Your task to perform on an android device: Empty the shopping cart on amazon. Add bose soundlink to the cart on amazon Image 0: 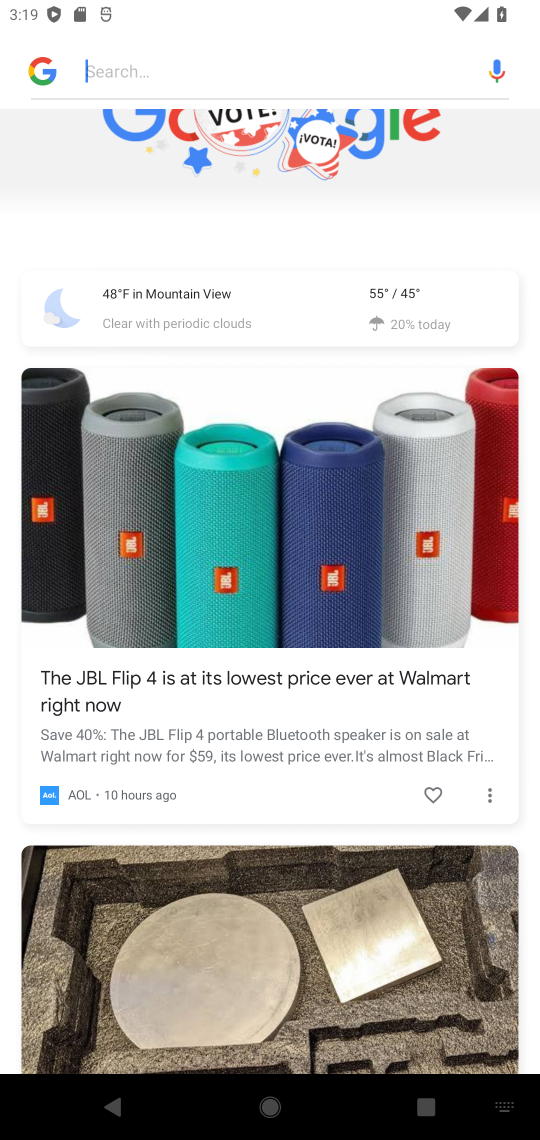
Step 0: press home button
Your task to perform on an android device: Empty the shopping cart on amazon. Add bose soundlink to the cart on amazon Image 1: 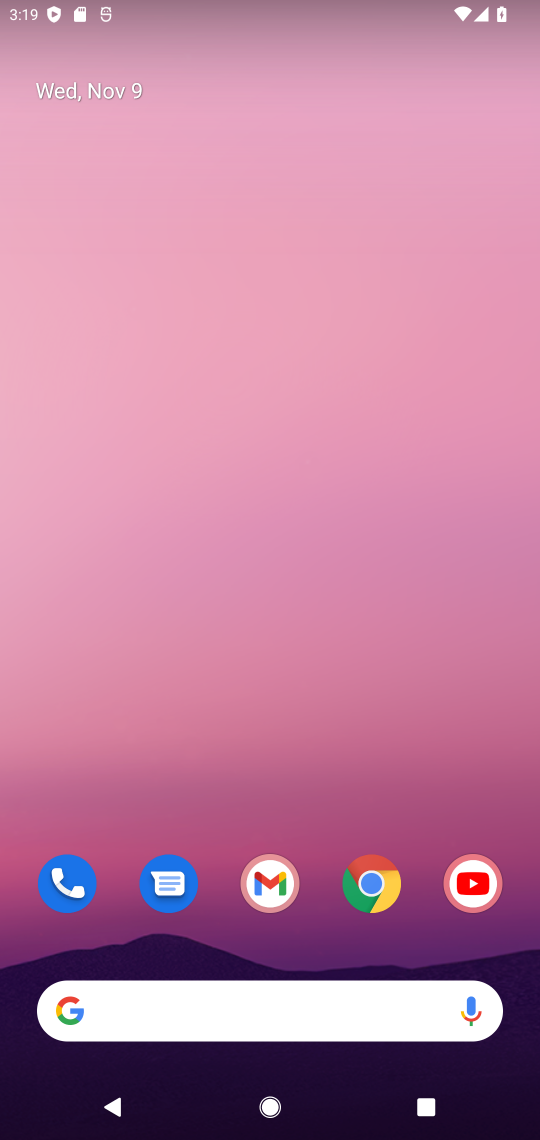
Step 1: click (376, 864)
Your task to perform on an android device: Empty the shopping cart on amazon. Add bose soundlink to the cart on amazon Image 2: 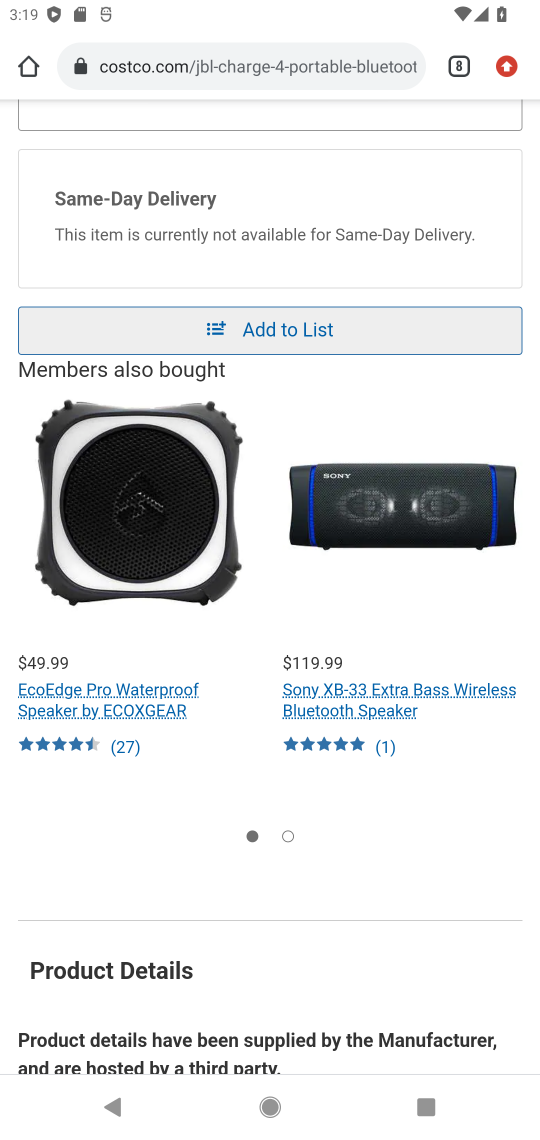
Step 2: click (458, 73)
Your task to perform on an android device: Empty the shopping cart on amazon. Add bose soundlink to the cart on amazon Image 3: 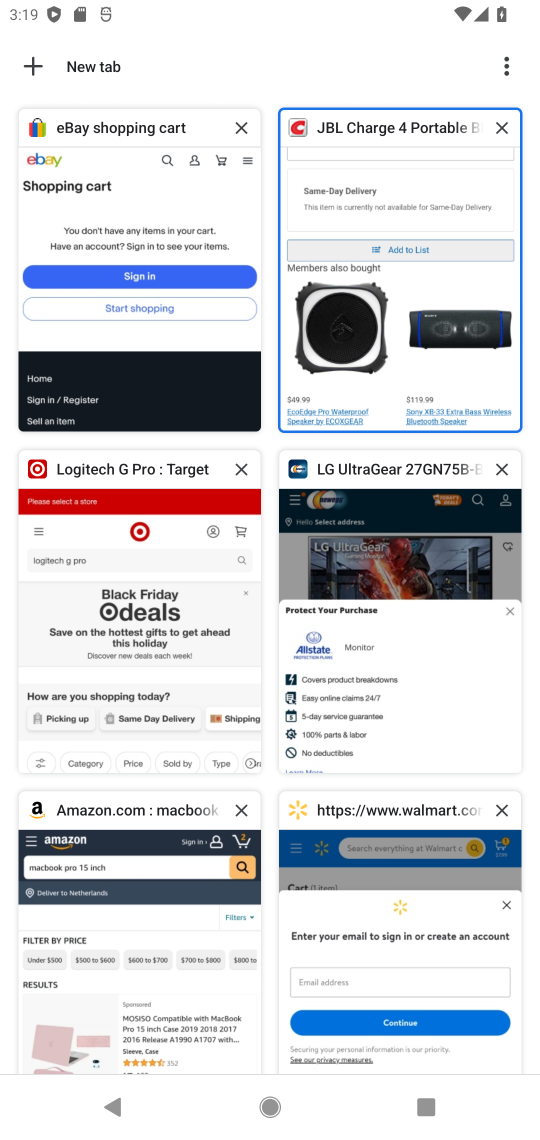
Step 3: click (5, 895)
Your task to perform on an android device: Empty the shopping cart on amazon. Add bose soundlink to the cart on amazon Image 4: 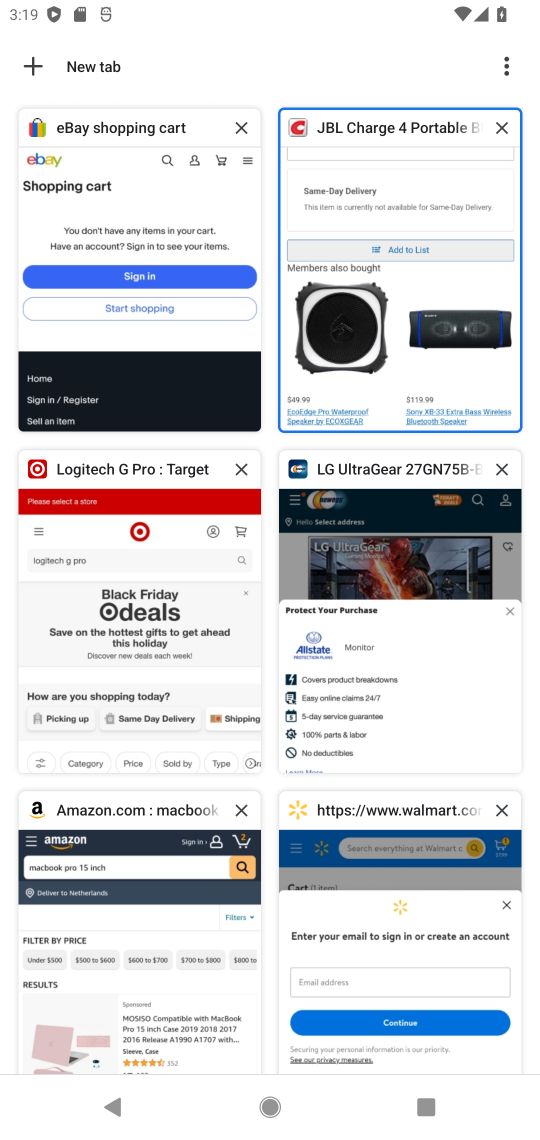
Step 4: click (33, 960)
Your task to perform on an android device: Empty the shopping cart on amazon. Add bose soundlink to the cart on amazon Image 5: 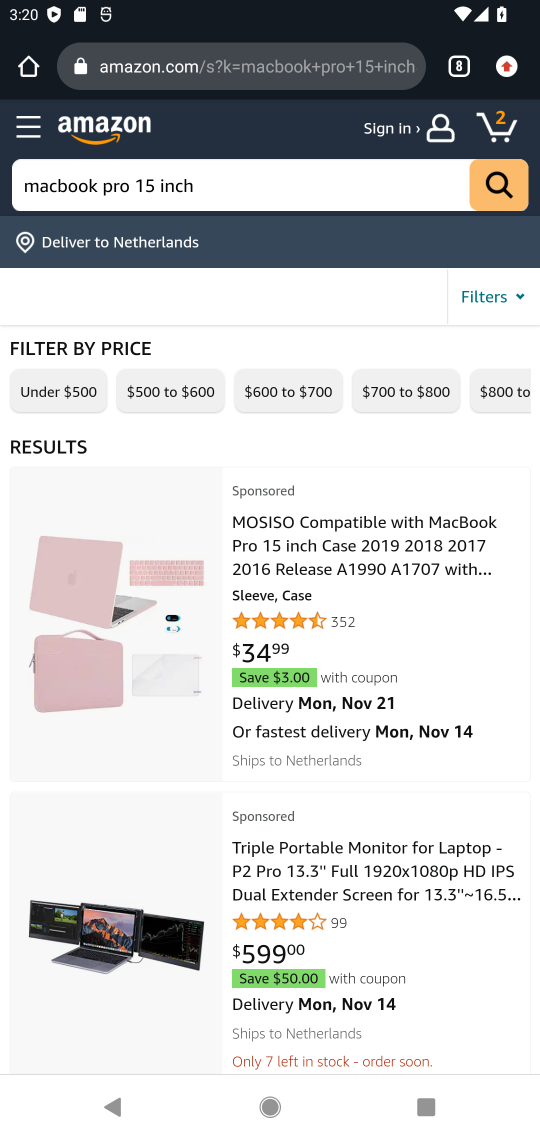
Step 5: click (496, 115)
Your task to perform on an android device: Empty the shopping cart on amazon. Add bose soundlink to the cart on amazon Image 6: 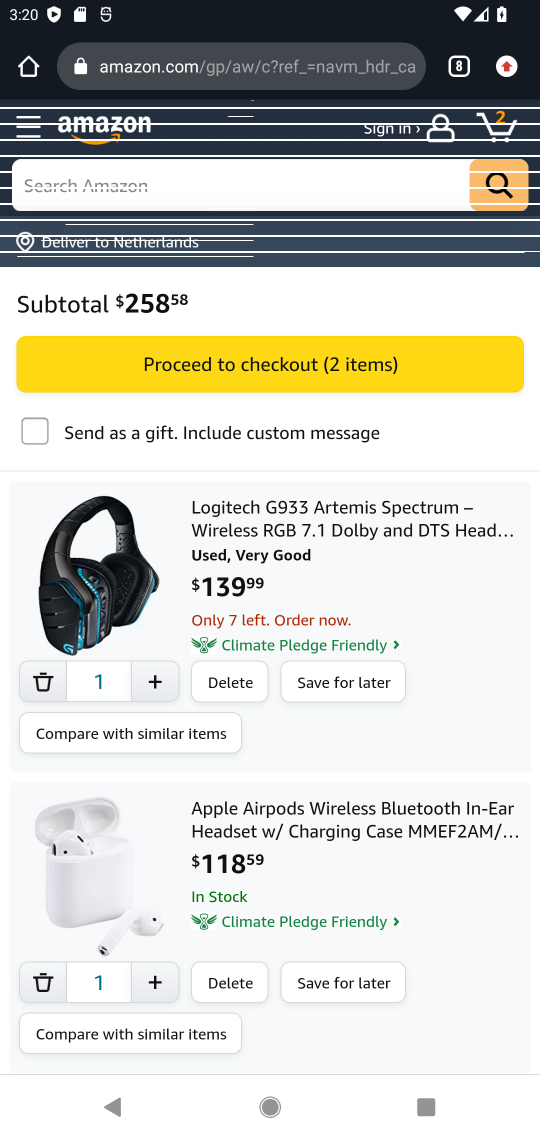
Step 6: click (45, 680)
Your task to perform on an android device: Empty the shopping cart on amazon. Add bose soundlink to the cart on amazon Image 7: 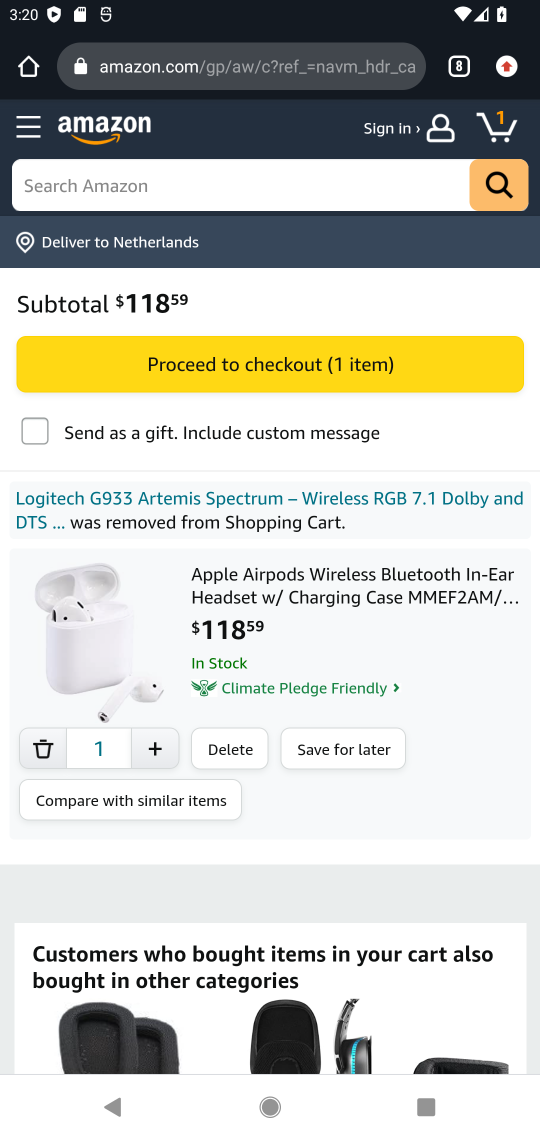
Step 7: click (40, 758)
Your task to perform on an android device: Empty the shopping cart on amazon. Add bose soundlink to the cart on amazon Image 8: 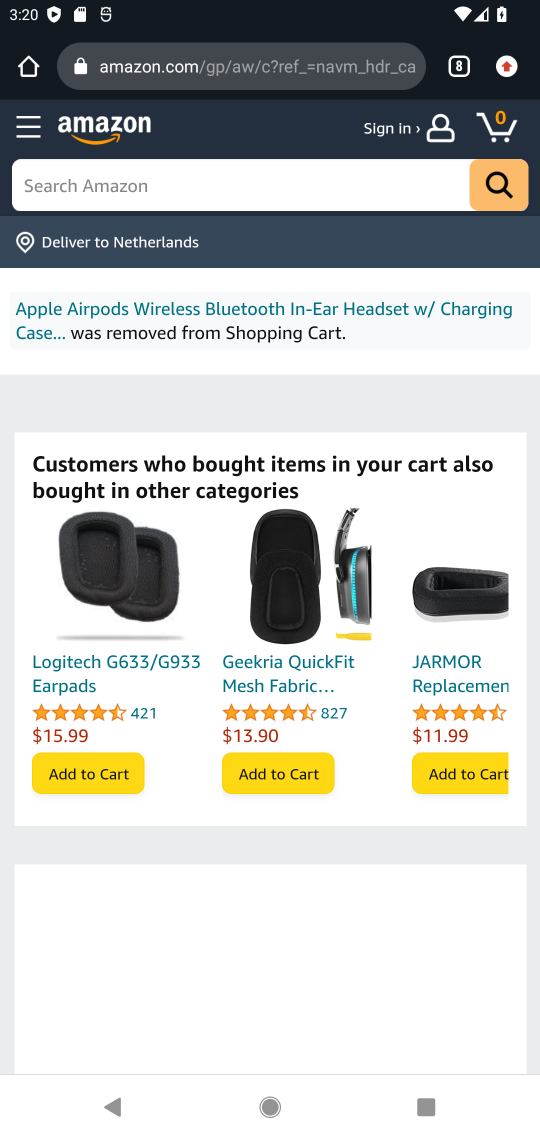
Step 8: click (130, 190)
Your task to perform on an android device: Empty the shopping cart on amazon. Add bose soundlink to the cart on amazon Image 9: 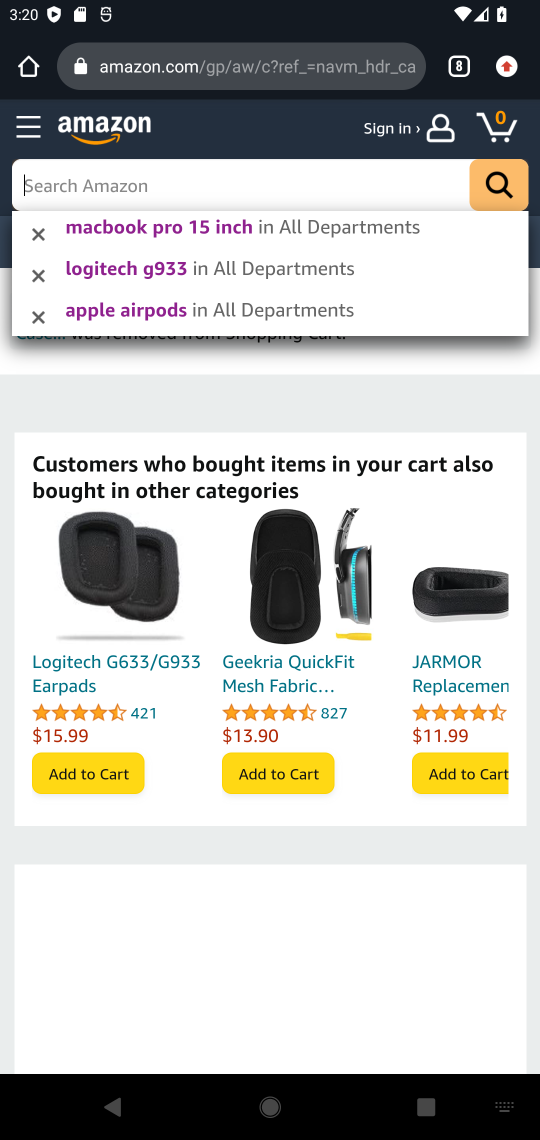
Step 9: type "bose soundlink"
Your task to perform on an android device: Empty the shopping cart on amazon. Add bose soundlink to the cart on amazon Image 10: 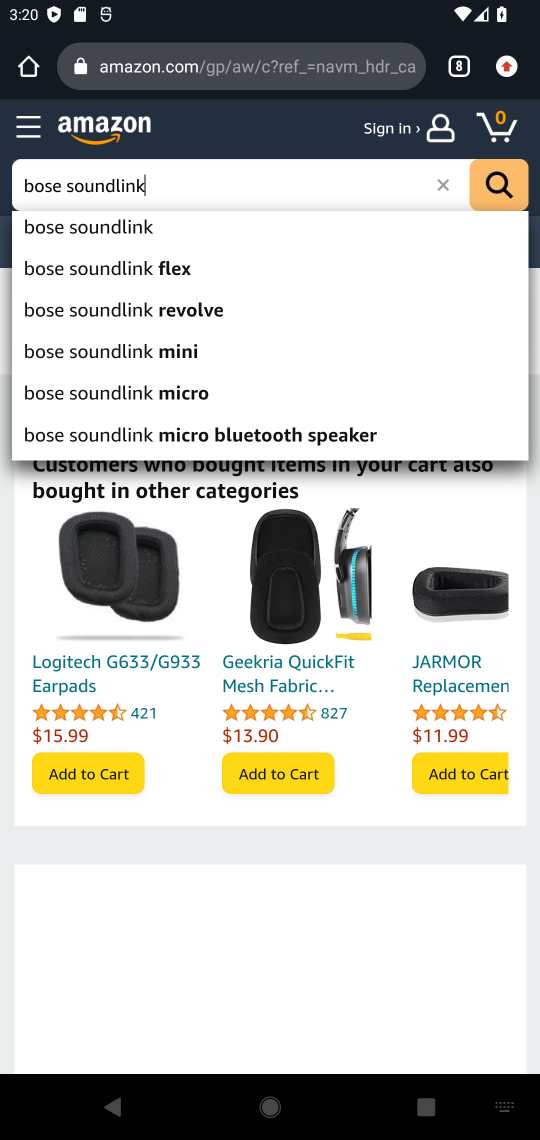
Step 10: click (100, 230)
Your task to perform on an android device: Empty the shopping cart on amazon. Add bose soundlink to the cart on amazon Image 11: 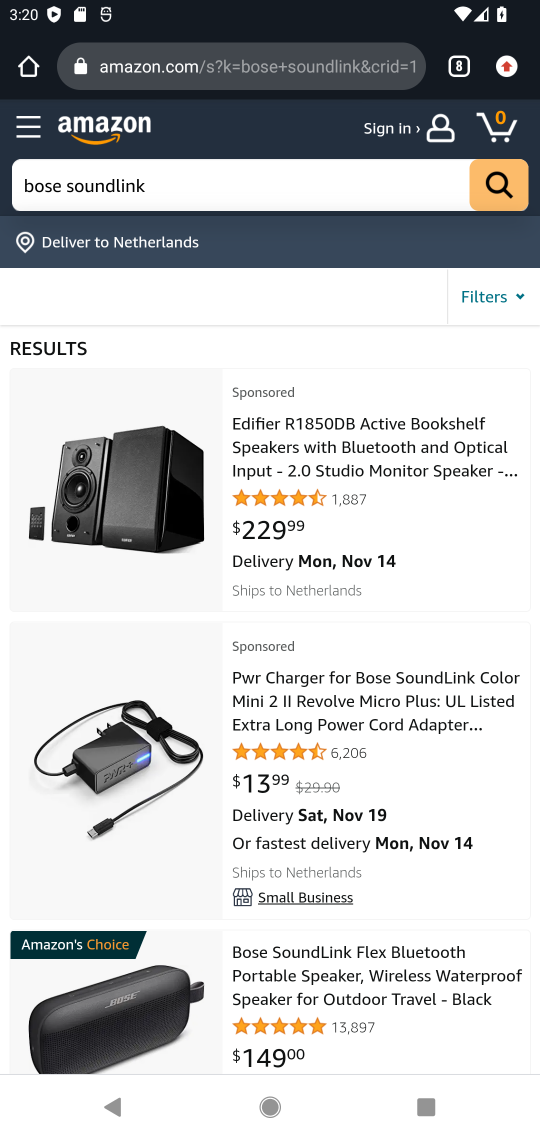
Step 11: click (306, 981)
Your task to perform on an android device: Empty the shopping cart on amazon. Add bose soundlink to the cart on amazon Image 12: 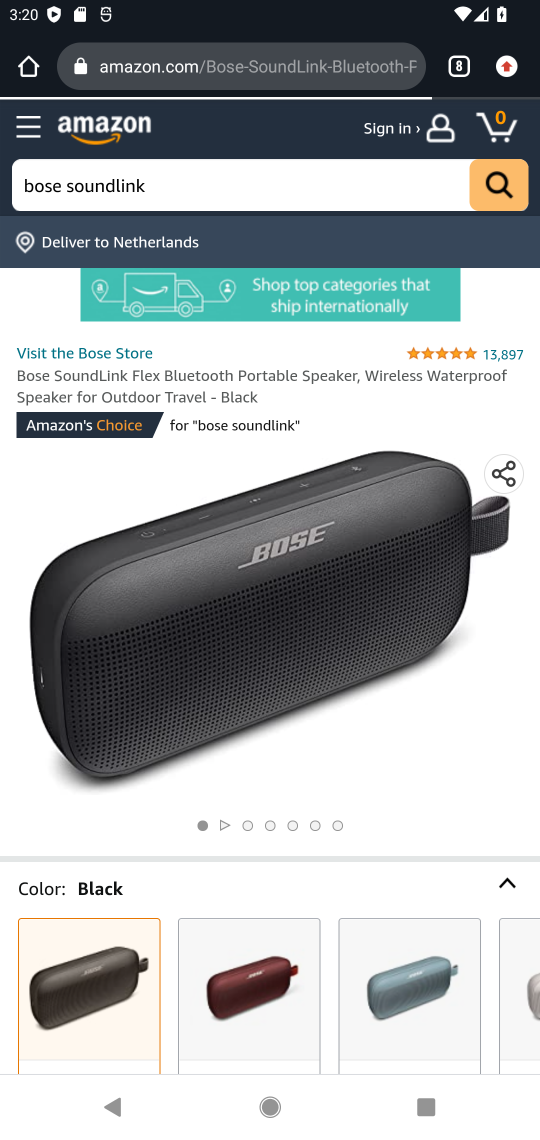
Step 12: drag from (369, 895) to (360, 265)
Your task to perform on an android device: Empty the shopping cart on amazon. Add bose soundlink to the cart on amazon Image 13: 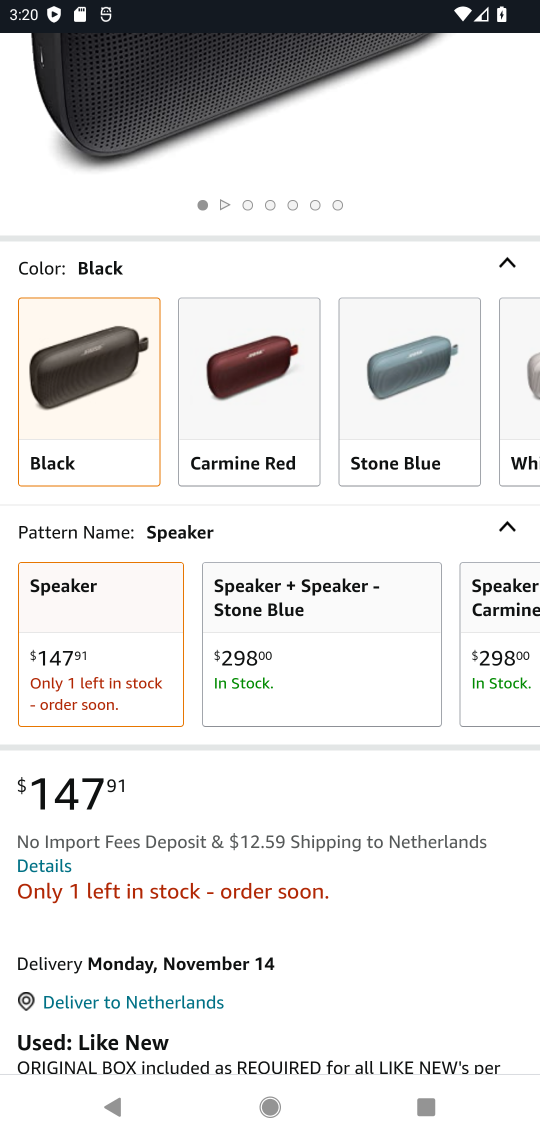
Step 13: drag from (256, 848) to (245, 80)
Your task to perform on an android device: Empty the shopping cart on amazon. Add bose soundlink to the cart on amazon Image 14: 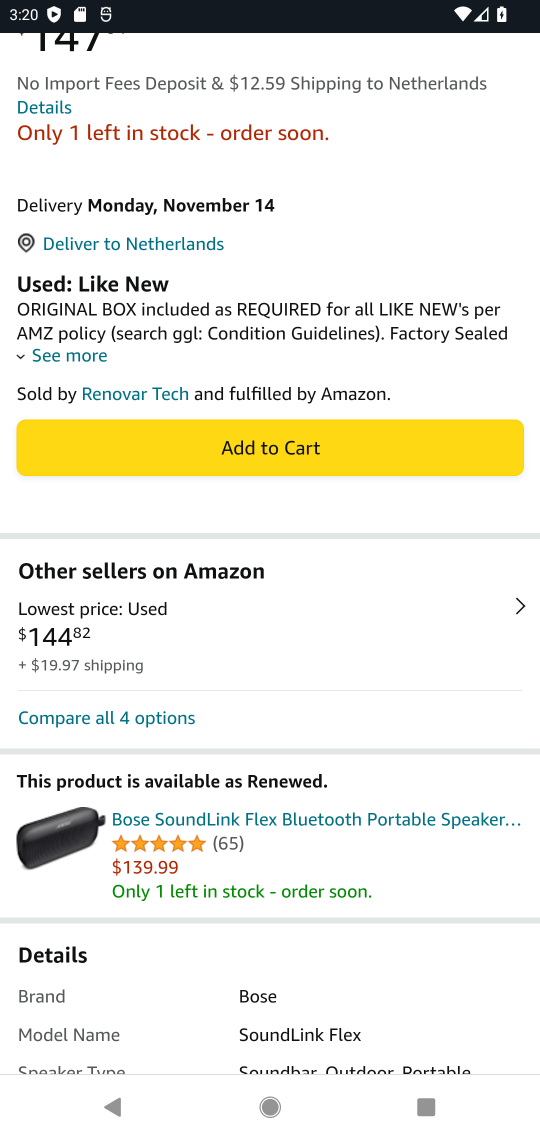
Step 14: click (294, 438)
Your task to perform on an android device: Empty the shopping cart on amazon. Add bose soundlink to the cart on amazon Image 15: 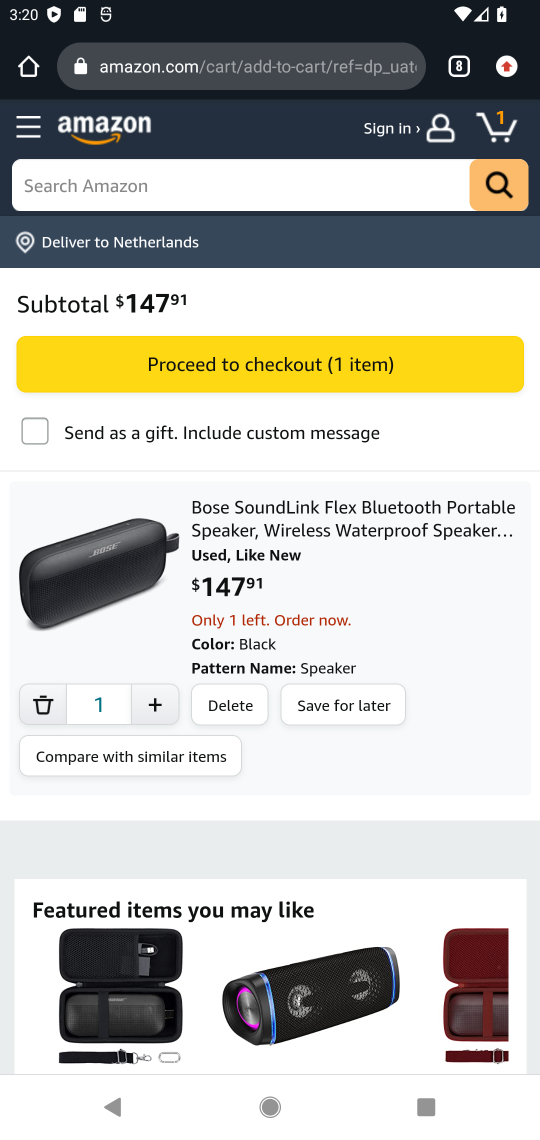
Step 15: task complete